Your task to perform on an android device: see sites visited before in the chrome app Image 0: 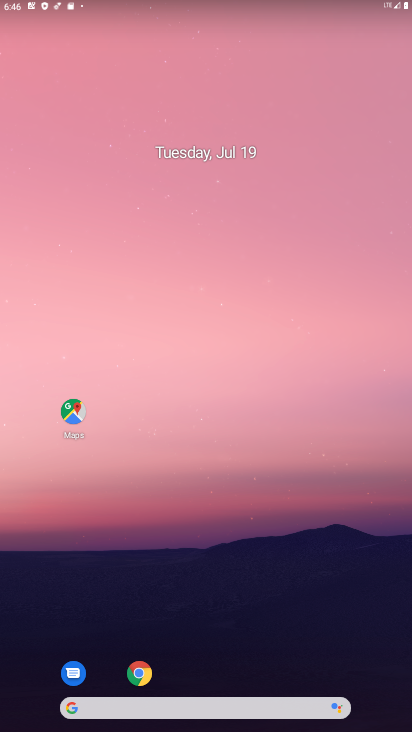
Step 0: drag from (356, 689) to (227, 62)
Your task to perform on an android device: see sites visited before in the chrome app Image 1: 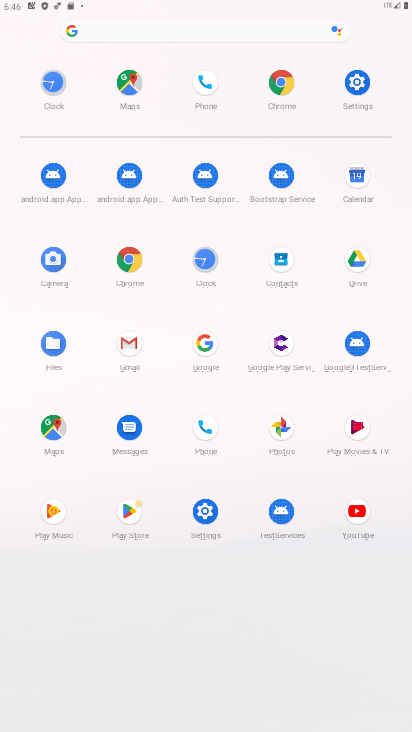
Step 1: click (132, 260)
Your task to perform on an android device: see sites visited before in the chrome app Image 2: 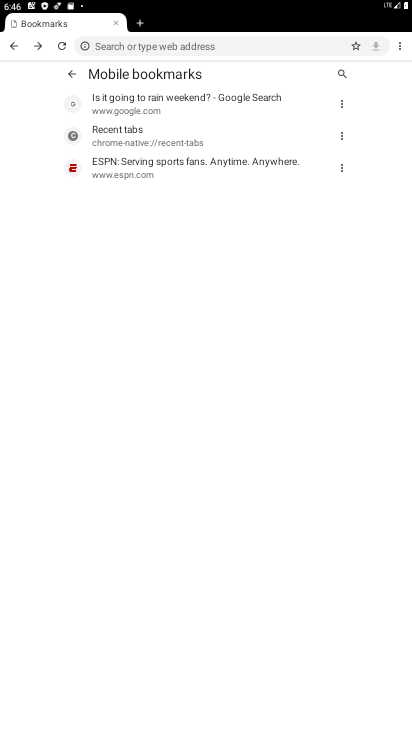
Step 2: task complete